Your task to perform on an android device: change the clock display to show seconds Image 0: 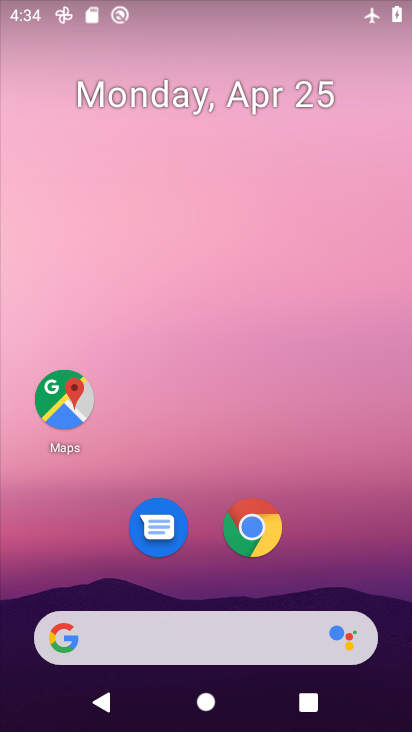
Step 0: drag from (393, 613) to (322, 134)
Your task to perform on an android device: change the clock display to show seconds Image 1: 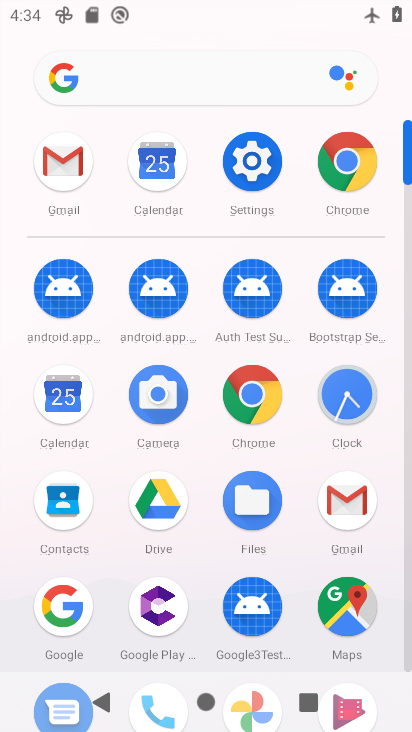
Step 1: click (405, 647)
Your task to perform on an android device: change the clock display to show seconds Image 2: 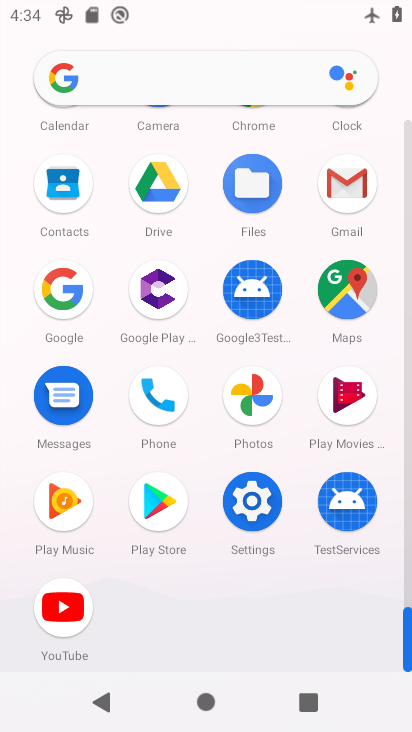
Step 2: click (405, 181)
Your task to perform on an android device: change the clock display to show seconds Image 3: 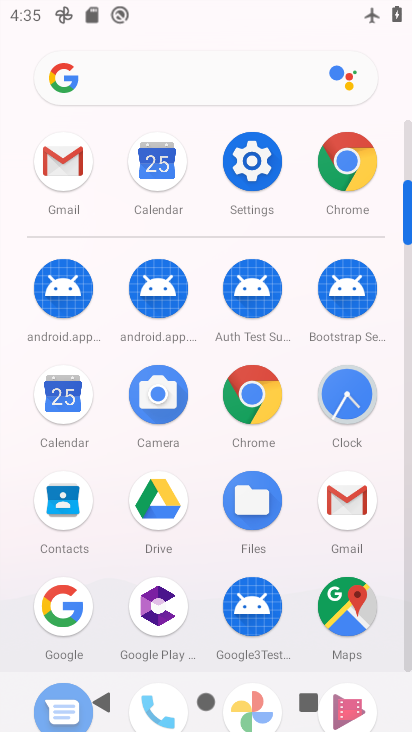
Step 3: click (345, 395)
Your task to perform on an android device: change the clock display to show seconds Image 4: 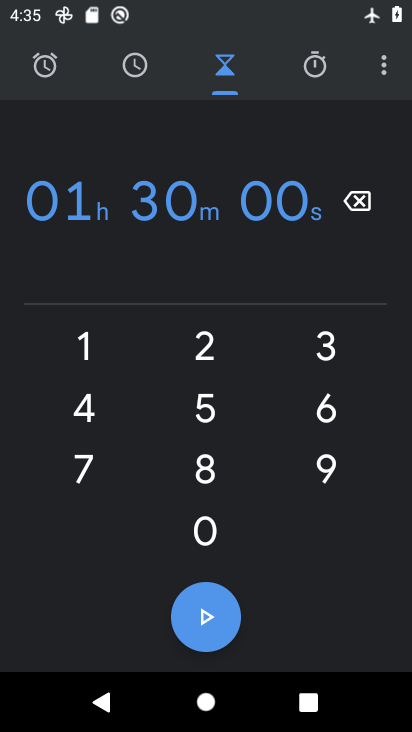
Step 4: click (384, 73)
Your task to perform on an android device: change the clock display to show seconds Image 5: 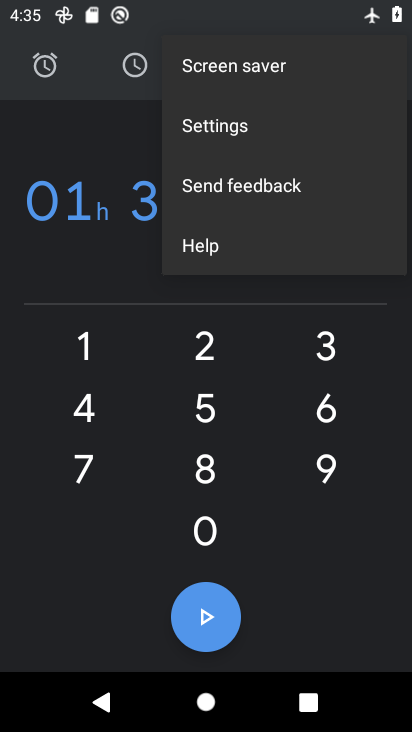
Step 5: click (222, 116)
Your task to perform on an android device: change the clock display to show seconds Image 6: 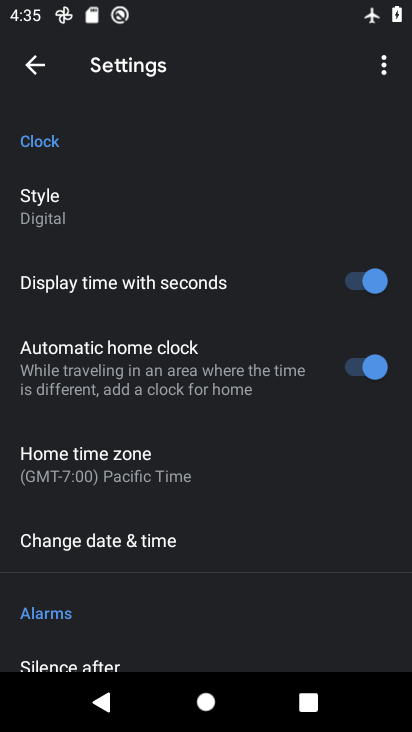
Step 6: task complete